Your task to perform on an android device: move an email to a new category in the gmail app Image 0: 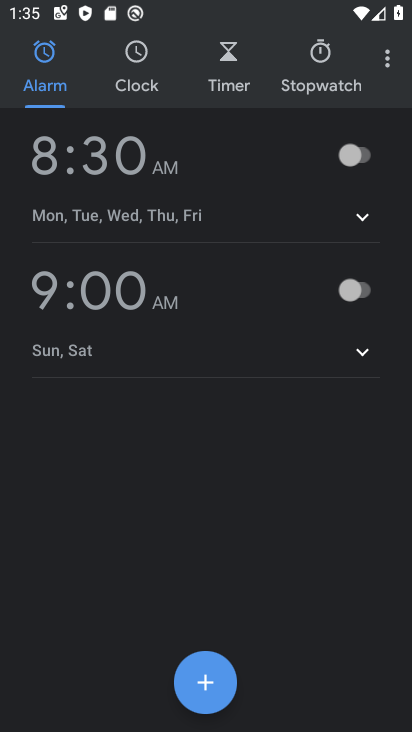
Step 0: press home button
Your task to perform on an android device: move an email to a new category in the gmail app Image 1: 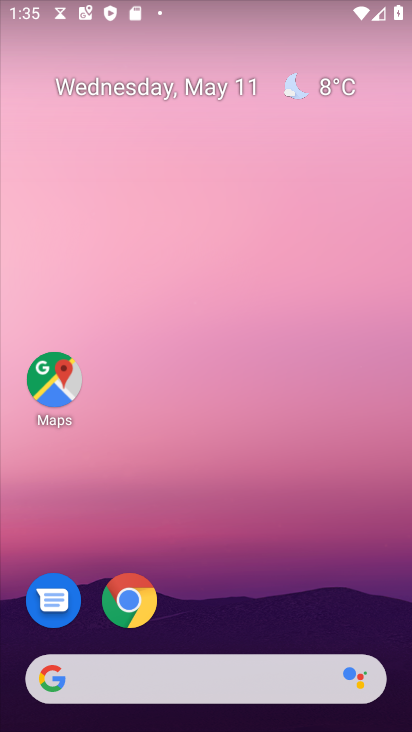
Step 1: drag from (256, 534) to (182, 54)
Your task to perform on an android device: move an email to a new category in the gmail app Image 2: 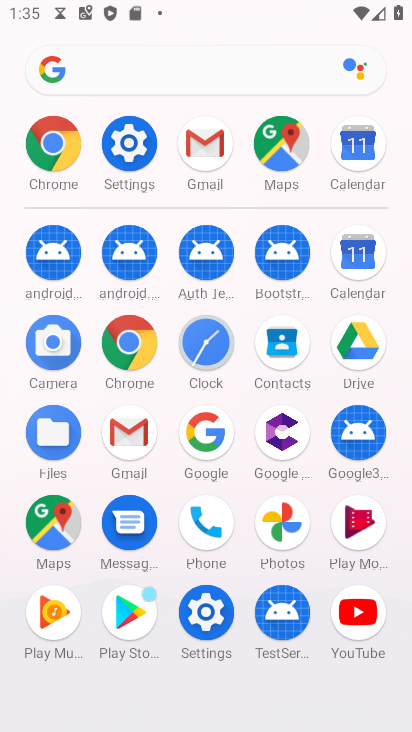
Step 2: click (122, 440)
Your task to perform on an android device: move an email to a new category in the gmail app Image 3: 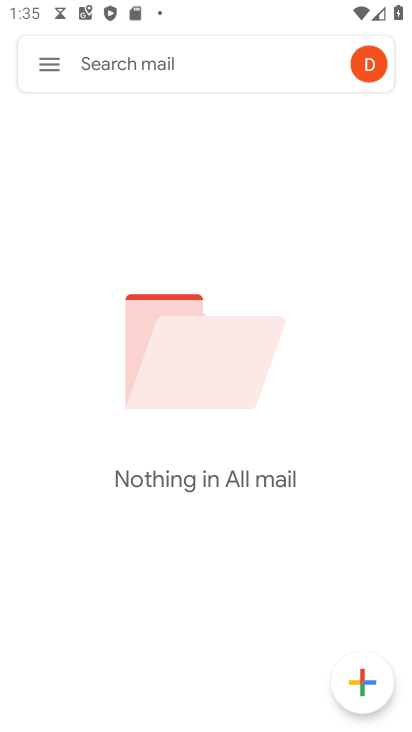
Step 3: click (43, 70)
Your task to perform on an android device: move an email to a new category in the gmail app Image 4: 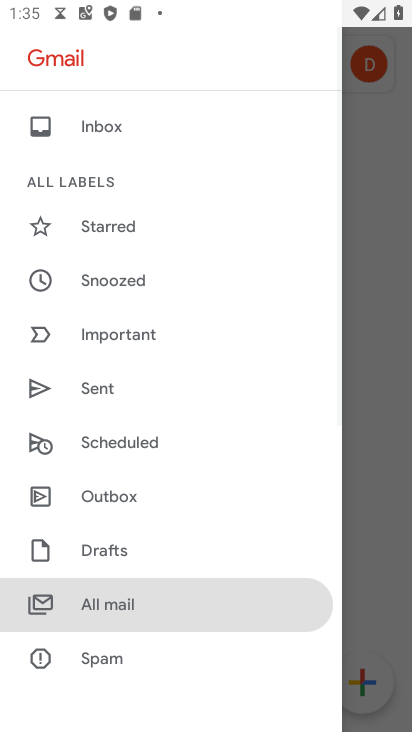
Step 4: task complete